Your task to perform on an android device: turn on the 12-hour format for clock Image 0: 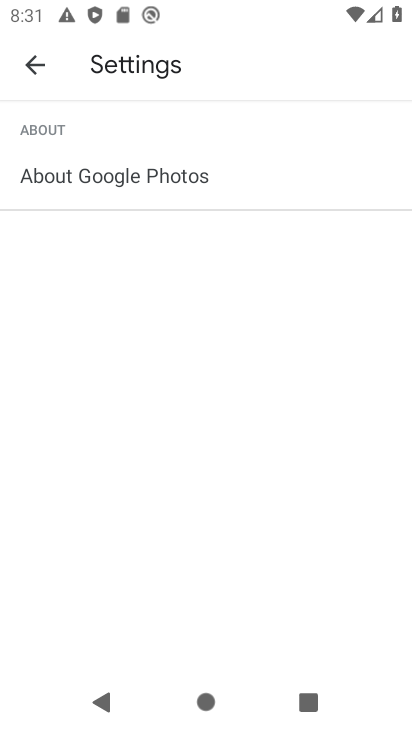
Step 0: press back button
Your task to perform on an android device: turn on the 12-hour format for clock Image 1: 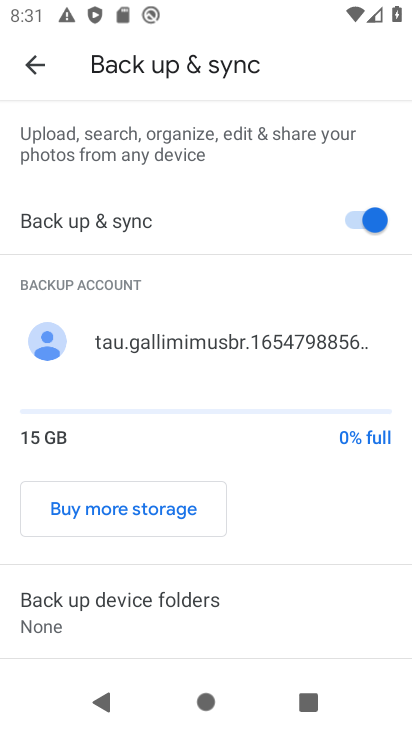
Step 1: press back button
Your task to perform on an android device: turn on the 12-hour format for clock Image 2: 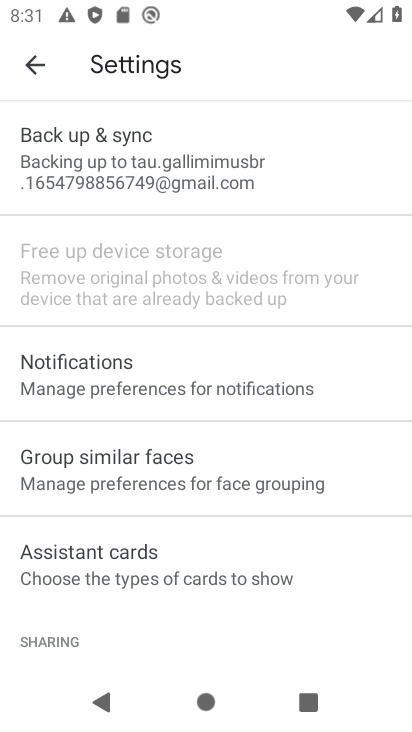
Step 2: press home button
Your task to perform on an android device: turn on the 12-hour format for clock Image 3: 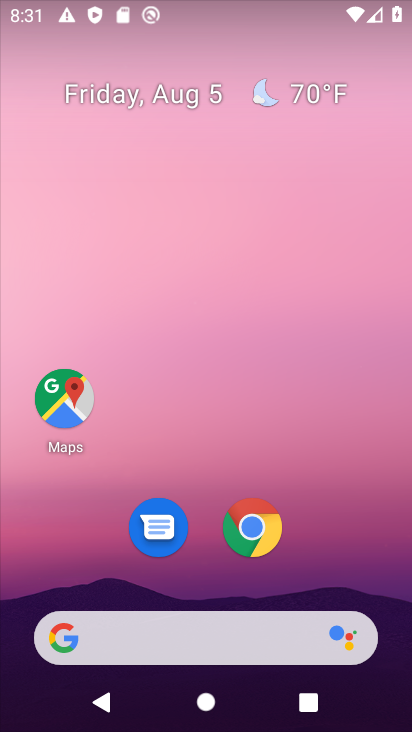
Step 3: click (246, 139)
Your task to perform on an android device: turn on the 12-hour format for clock Image 4: 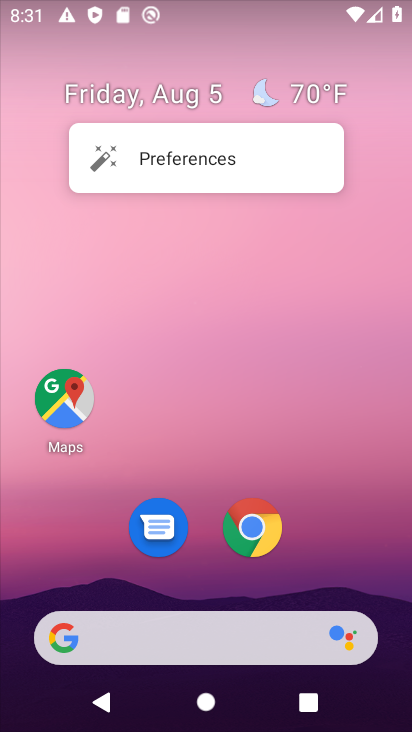
Step 4: drag from (209, 667) to (231, 299)
Your task to perform on an android device: turn on the 12-hour format for clock Image 5: 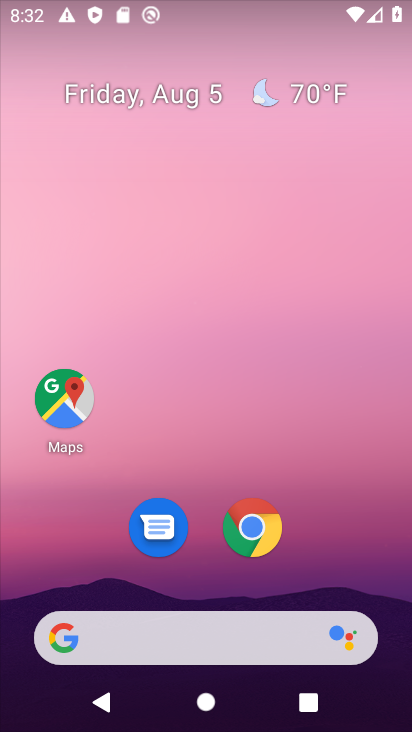
Step 5: drag from (219, 631) to (216, 187)
Your task to perform on an android device: turn on the 12-hour format for clock Image 6: 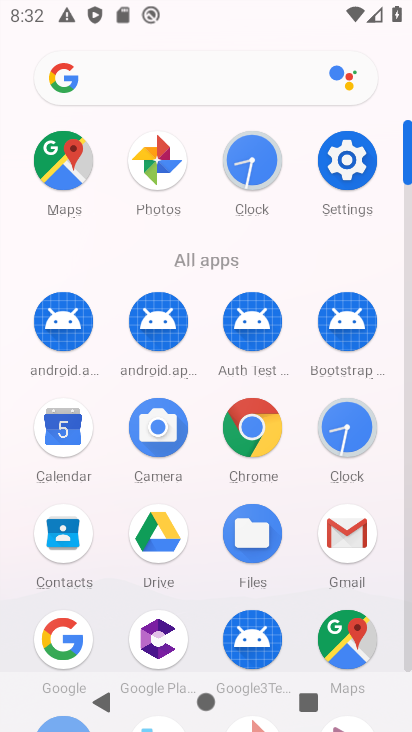
Step 6: click (342, 179)
Your task to perform on an android device: turn on the 12-hour format for clock Image 7: 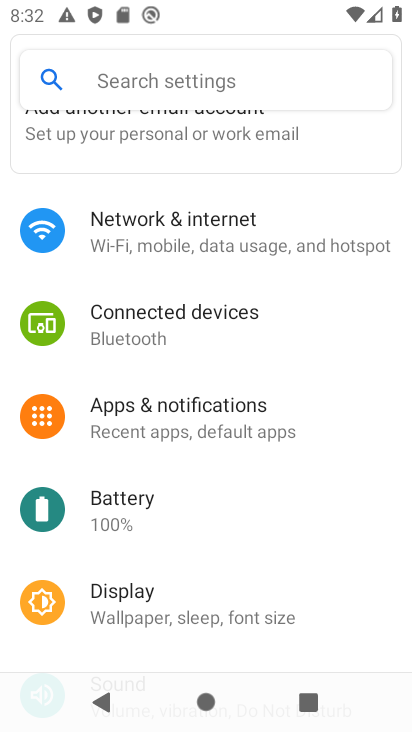
Step 7: drag from (271, 443) to (314, 34)
Your task to perform on an android device: turn on the 12-hour format for clock Image 8: 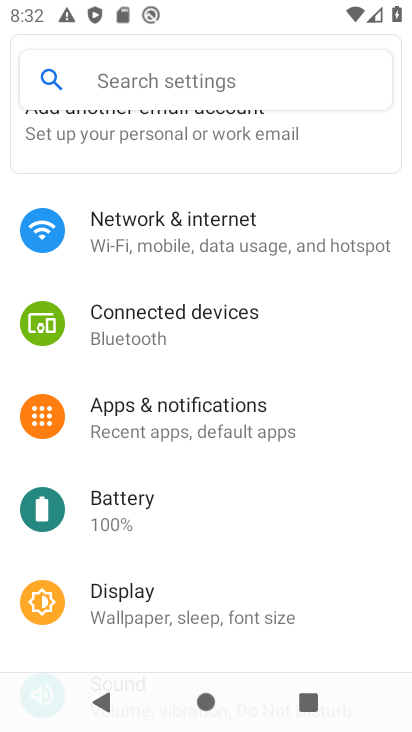
Step 8: drag from (267, 582) to (245, 47)
Your task to perform on an android device: turn on the 12-hour format for clock Image 9: 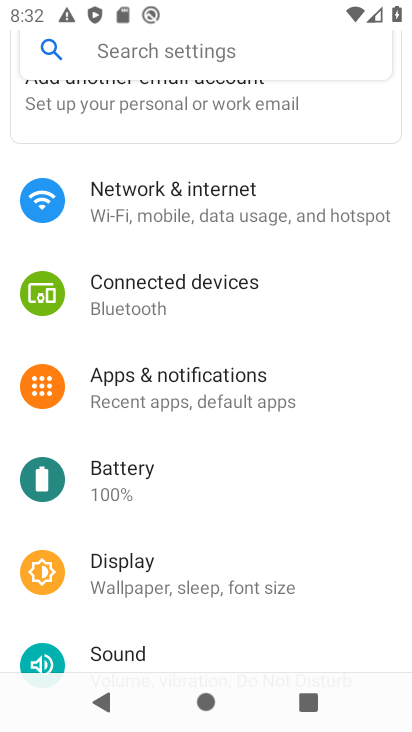
Step 9: drag from (270, 536) to (248, 99)
Your task to perform on an android device: turn on the 12-hour format for clock Image 10: 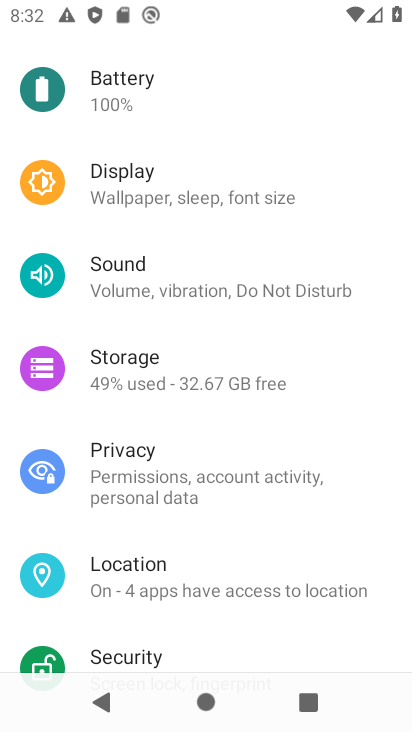
Step 10: drag from (213, 561) to (201, 230)
Your task to perform on an android device: turn on the 12-hour format for clock Image 11: 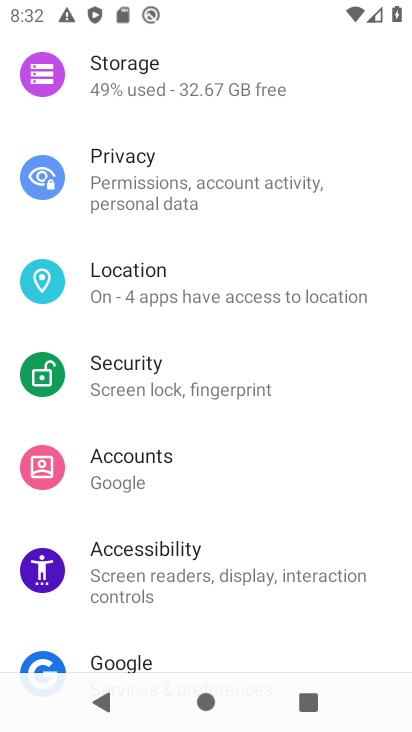
Step 11: drag from (255, 612) to (161, 73)
Your task to perform on an android device: turn on the 12-hour format for clock Image 12: 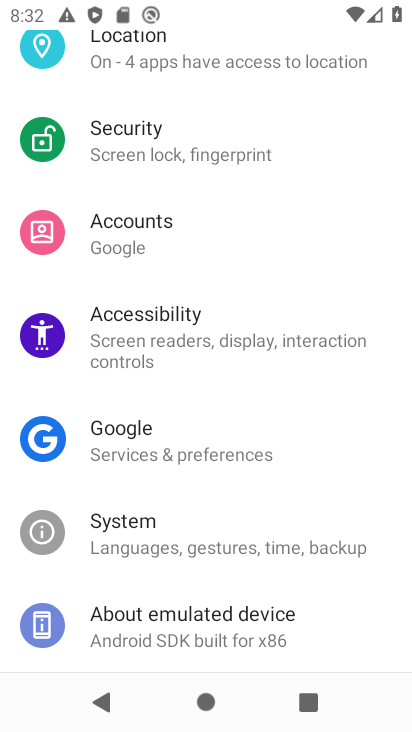
Step 12: click (215, 514)
Your task to perform on an android device: turn on the 12-hour format for clock Image 13: 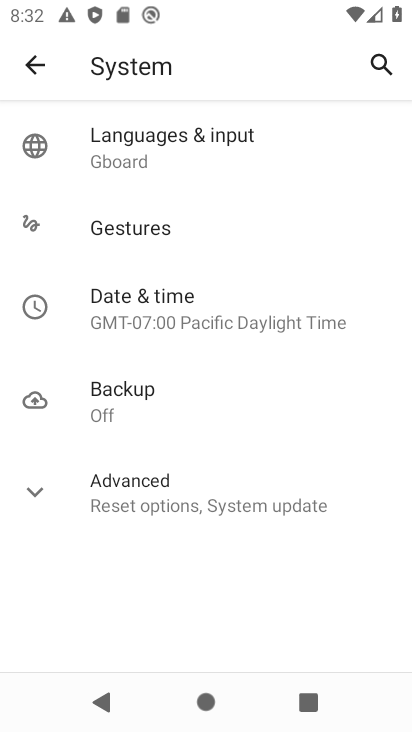
Step 13: click (196, 323)
Your task to perform on an android device: turn on the 12-hour format for clock Image 14: 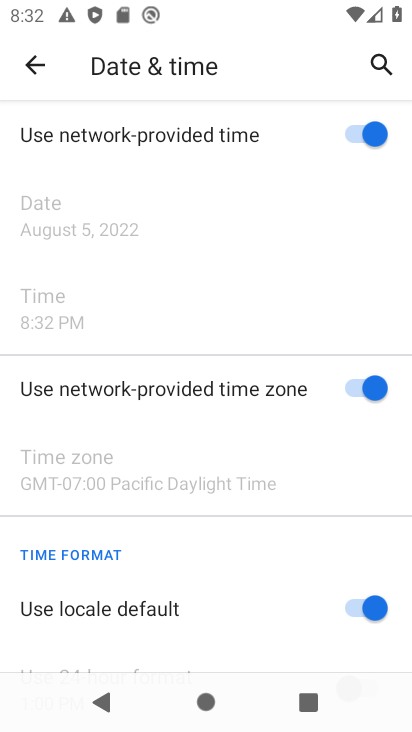
Step 14: task complete